Your task to perform on an android device: See recent photos Image 0: 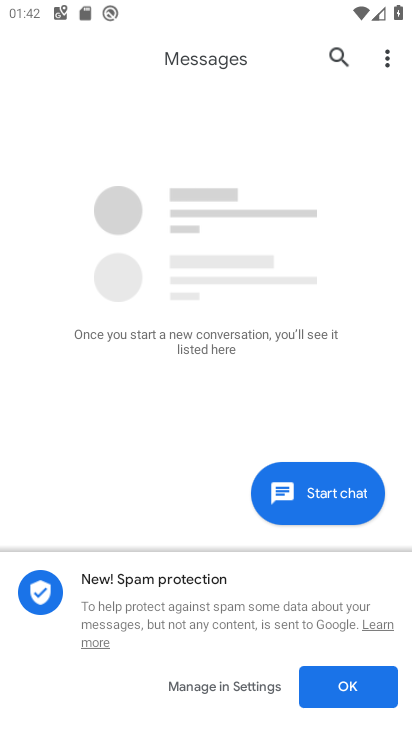
Step 0: press home button
Your task to perform on an android device: See recent photos Image 1: 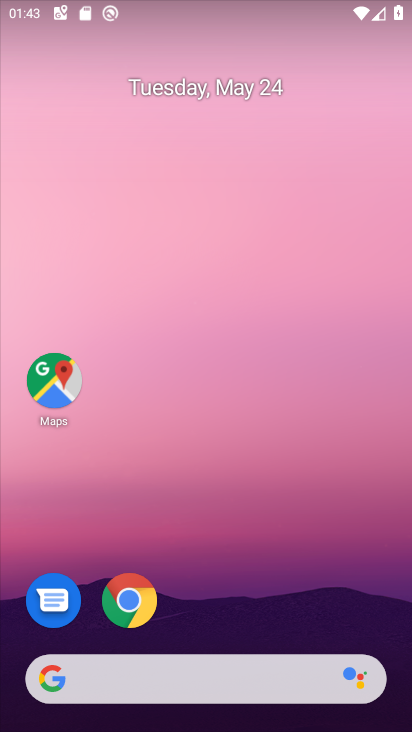
Step 1: drag from (281, 586) to (354, 70)
Your task to perform on an android device: See recent photos Image 2: 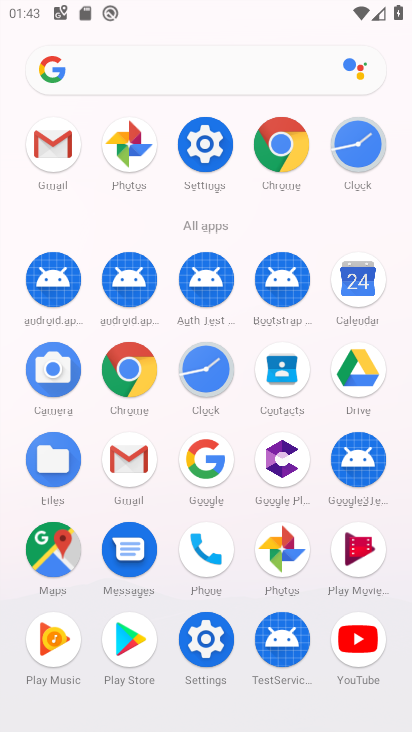
Step 2: click (291, 556)
Your task to perform on an android device: See recent photos Image 3: 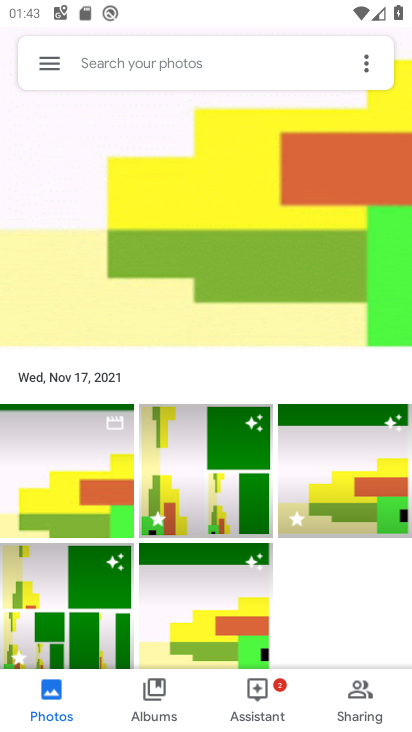
Step 3: task complete